Your task to perform on an android device: open chrome privacy settings Image 0: 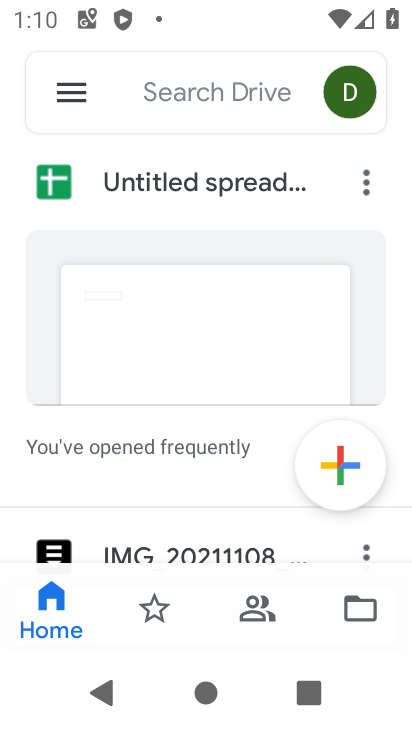
Step 0: press back button
Your task to perform on an android device: open chrome privacy settings Image 1: 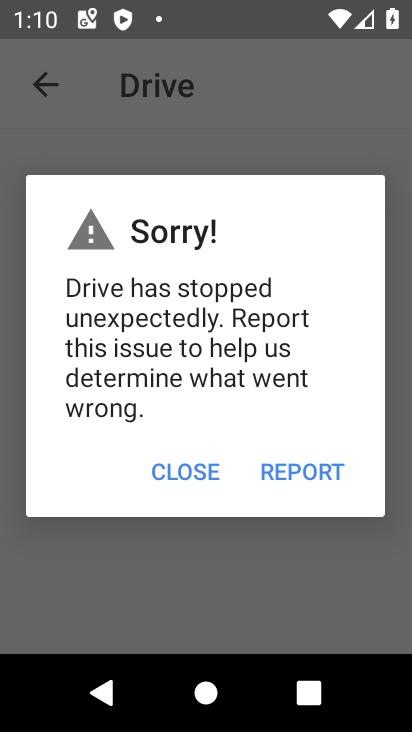
Step 1: press home button
Your task to perform on an android device: open chrome privacy settings Image 2: 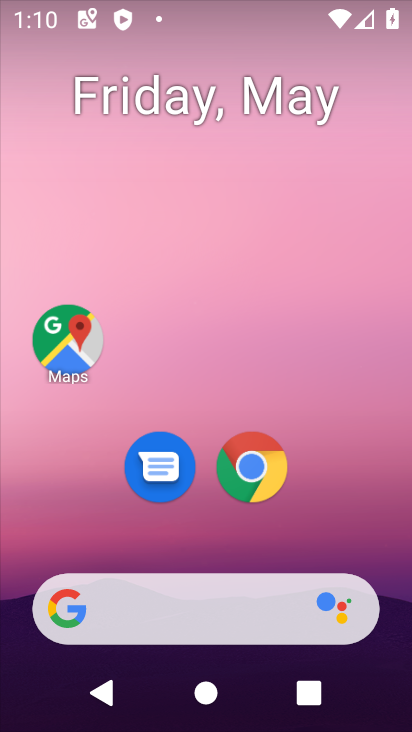
Step 2: click (249, 466)
Your task to perform on an android device: open chrome privacy settings Image 3: 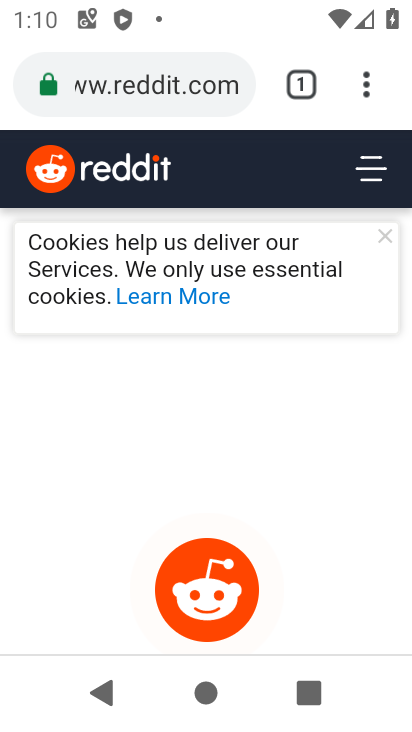
Step 3: click (367, 81)
Your task to perform on an android device: open chrome privacy settings Image 4: 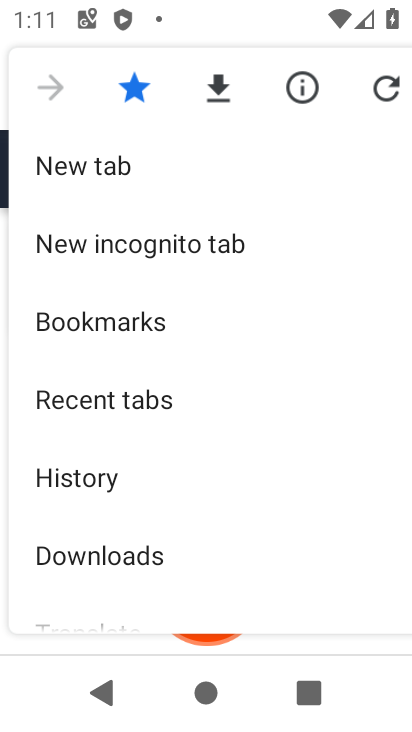
Step 4: drag from (175, 453) to (228, 350)
Your task to perform on an android device: open chrome privacy settings Image 5: 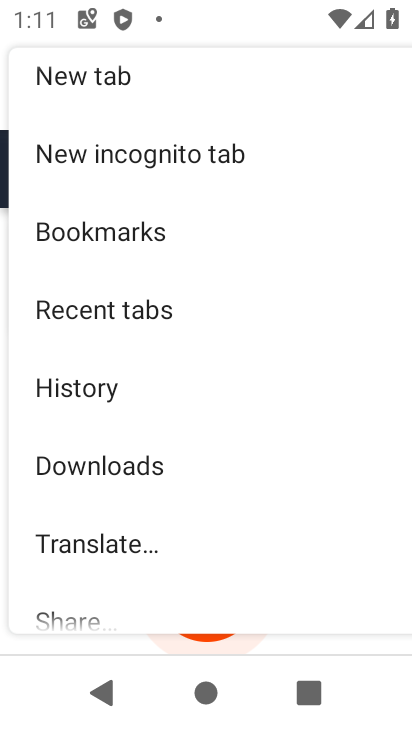
Step 5: drag from (159, 500) to (256, 378)
Your task to perform on an android device: open chrome privacy settings Image 6: 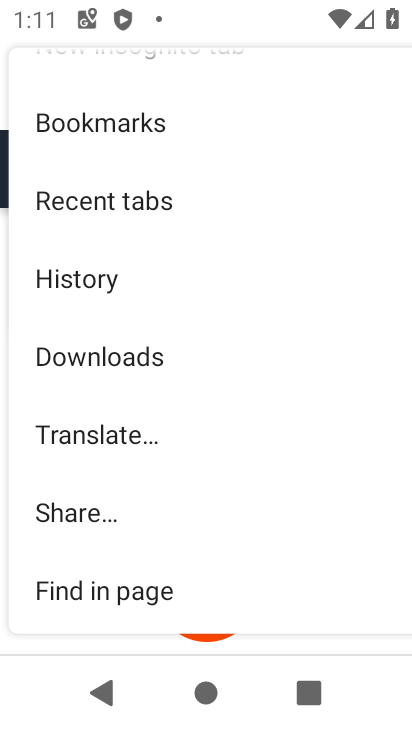
Step 6: drag from (142, 498) to (185, 361)
Your task to perform on an android device: open chrome privacy settings Image 7: 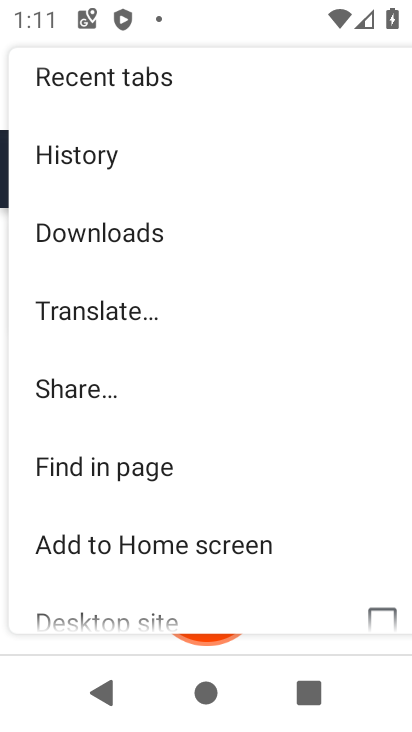
Step 7: drag from (123, 556) to (231, 362)
Your task to perform on an android device: open chrome privacy settings Image 8: 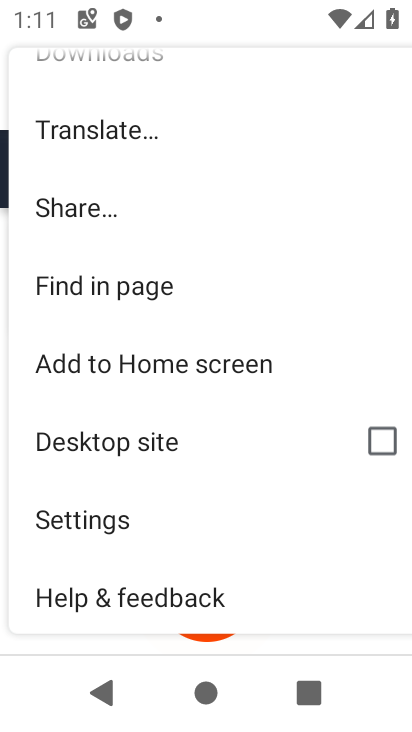
Step 8: click (97, 516)
Your task to perform on an android device: open chrome privacy settings Image 9: 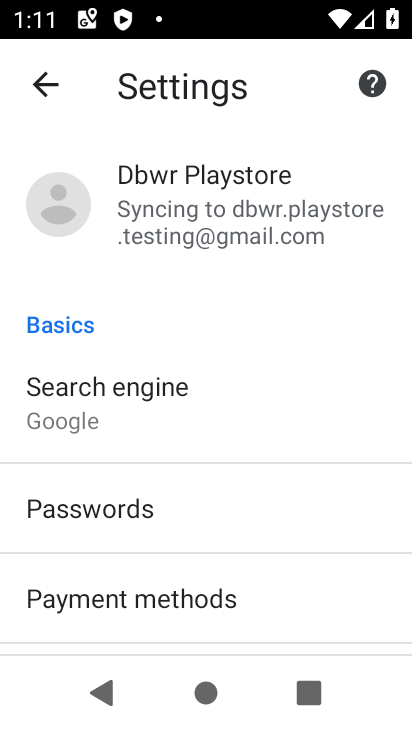
Step 9: drag from (194, 510) to (273, 348)
Your task to perform on an android device: open chrome privacy settings Image 10: 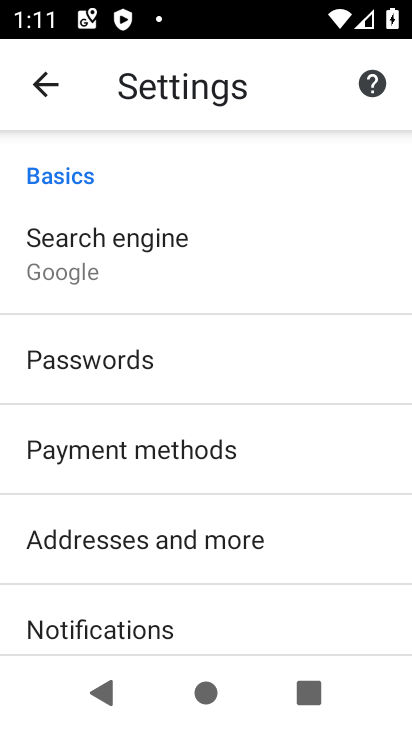
Step 10: drag from (197, 564) to (281, 417)
Your task to perform on an android device: open chrome privacy settings Image 11: 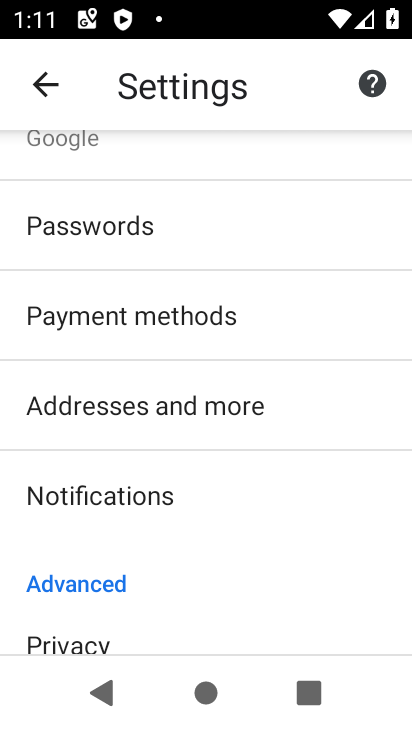
Step 11: drag from (220, 585) to (301, 406)
Your task to perform on an android device: open chrome privacy settings Image 12: 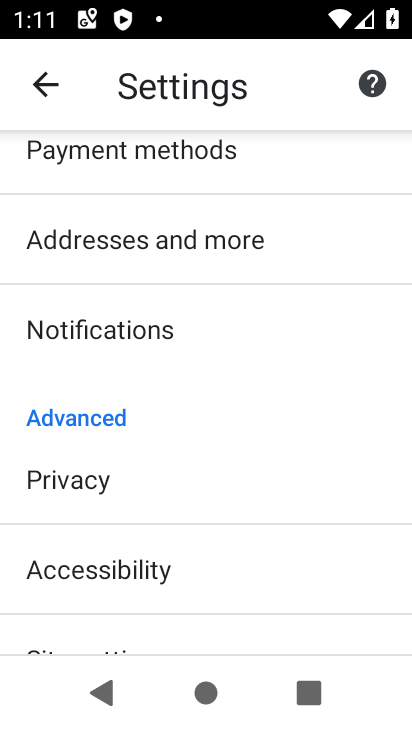
Step 12: click (83, 476)
Your task to perform on an android device: open chrome privacy settings Image 13: 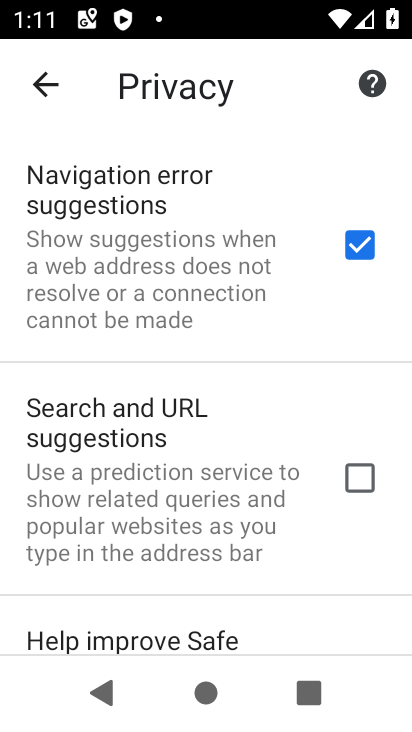
Step 13: task complete